Your task to perform on an android device: Check the weather Image 0: 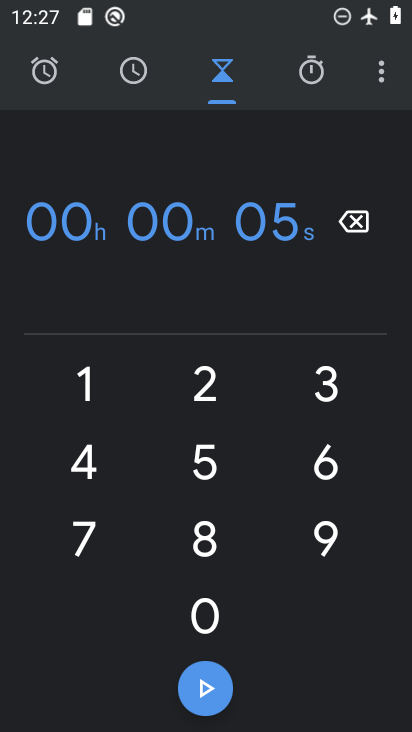
Step 0: press home button
Your task to perform on an android device: Check the weather Image 1: 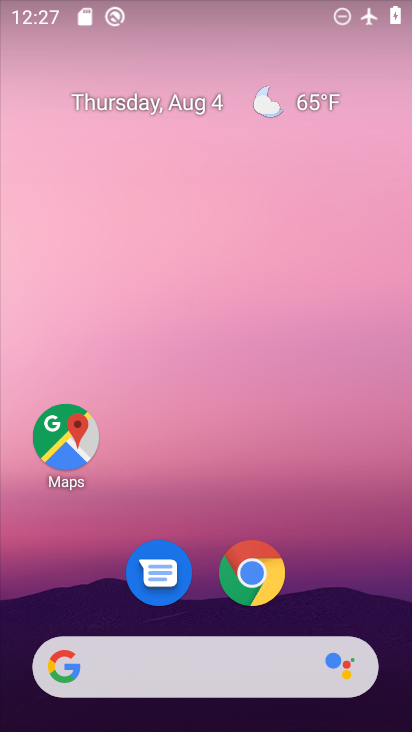
Step 1: click (307, 97)
Your task to perform on an android device: Check the weather Image 2: 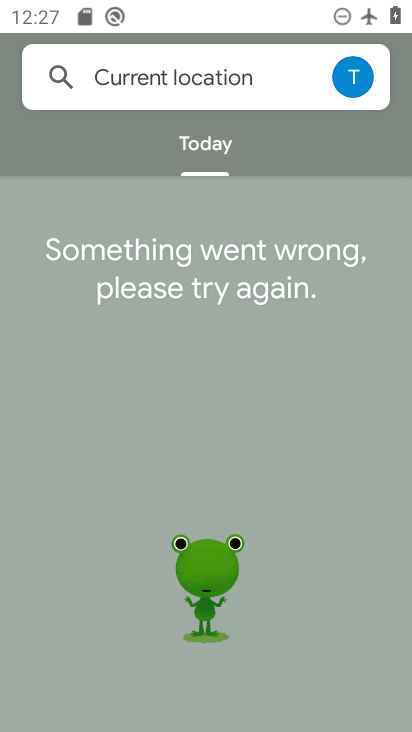
Step 2: task complete